Your task to perform on an android device: Go to internet settings Image 0: 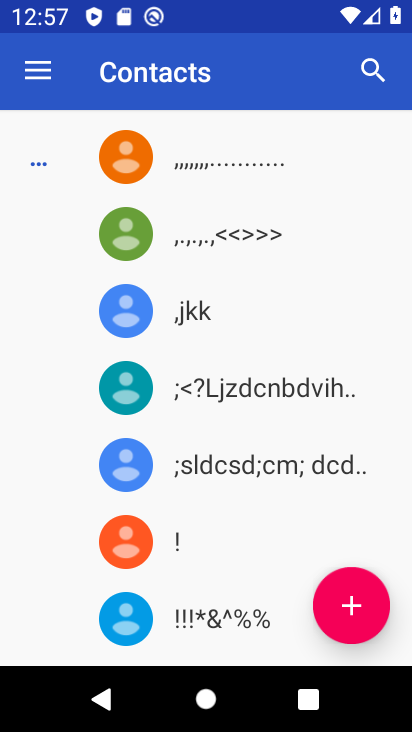
Step 0: press back button
Your task to perform on an android device: Go to internet settings Image 1: 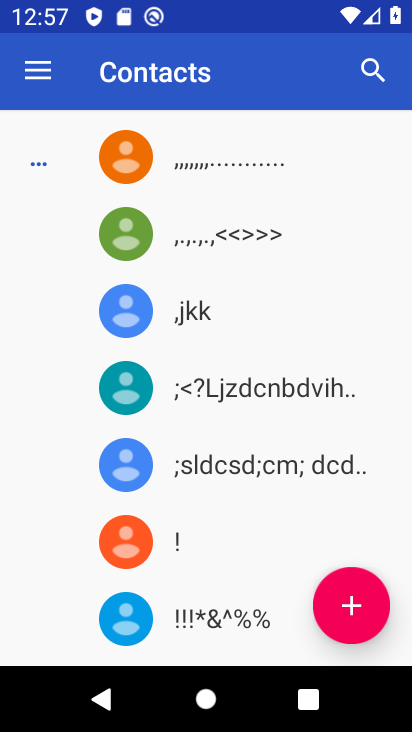
Step 1: press back button
Your task to perform on an android device: Go to internet settings Image 2: 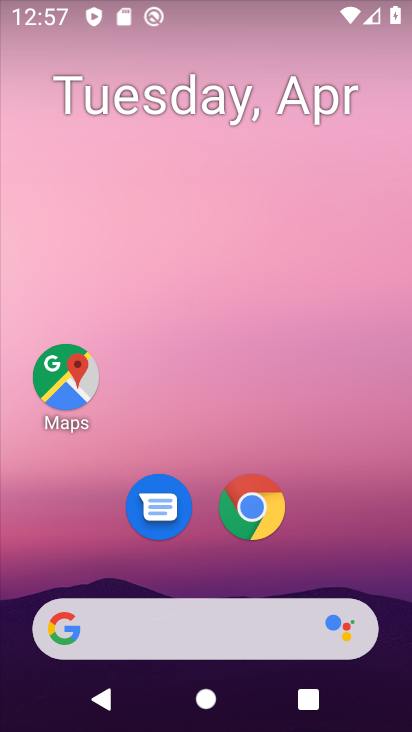
Step 2: drag from (322, 545) to (319, 133)
Your task to perform on an android device: Go to internet settings Image 3: 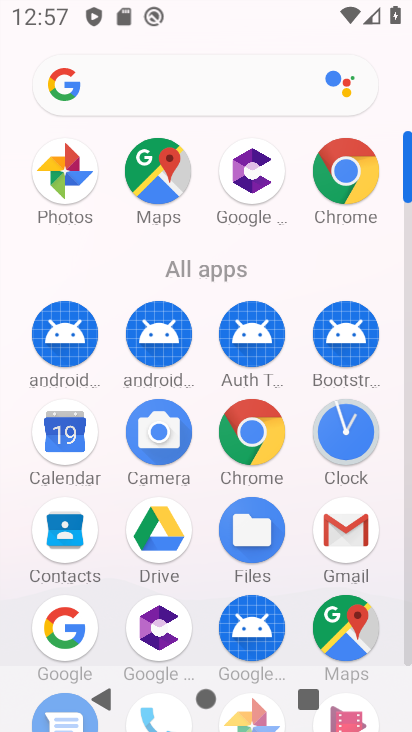
Step 3: drag from (228, 620) to (227, 464)
Your task to perform on an android device: Go to internet settings Image 4: 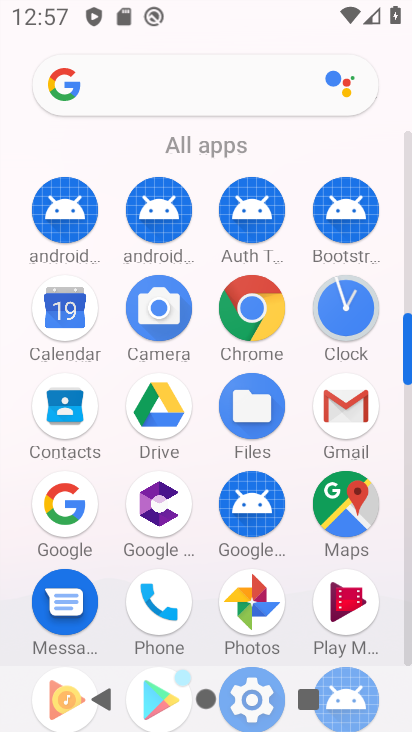
Step 4: drag from (298, 625) to (309, 263)
Your task to perform on an android device: Go to internet settings Image 5: 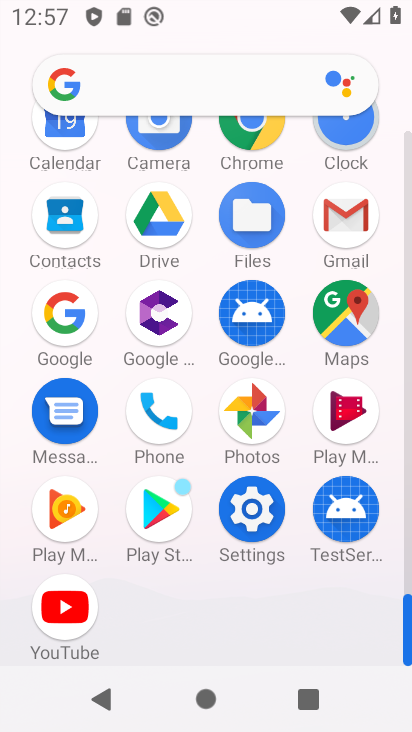
Step 5: click (242, 484)
Your task to perform on an android device: Go to internet settings Image 6: 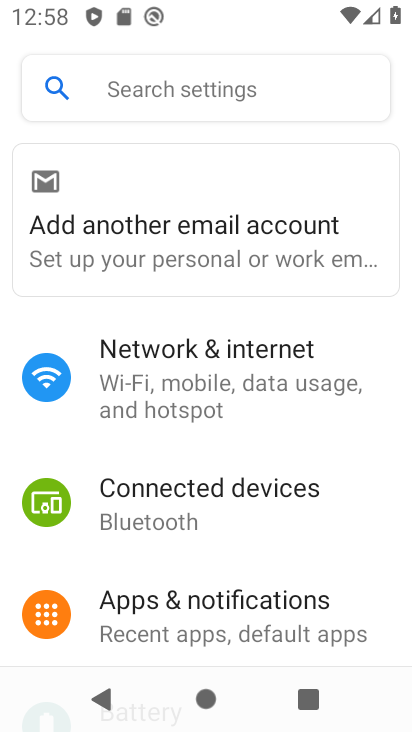
Step 6: click (265, 405)
Your task to perform on an android device: Go to internet settings Image 7: 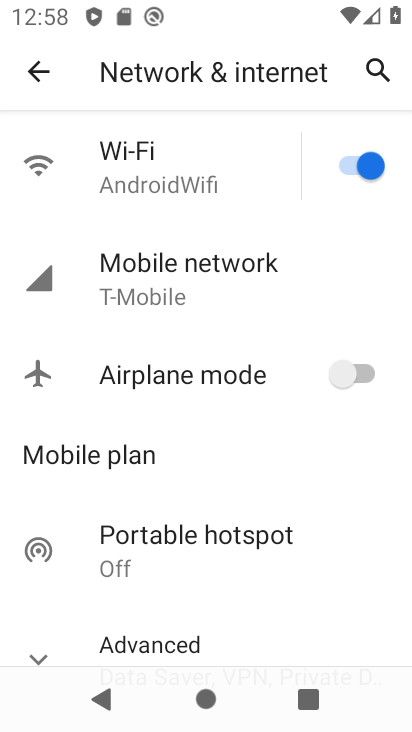
Step 7: click (250, 275)
Your task to perform on an android device: Go to internet settings Image 8: 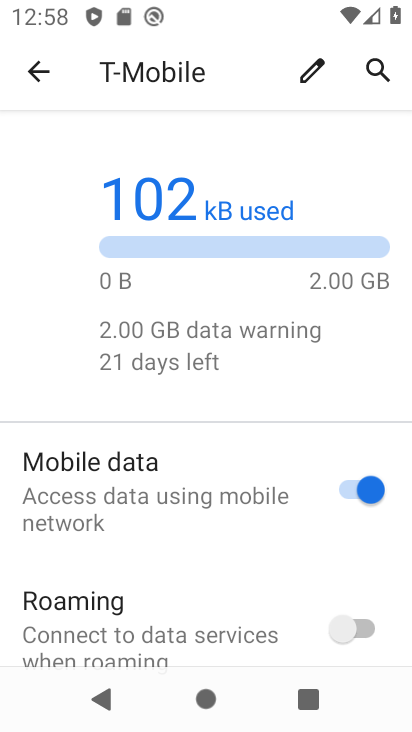
Step 8: task complete